Your task to perform on an android device: Go to Amazon Image 0: 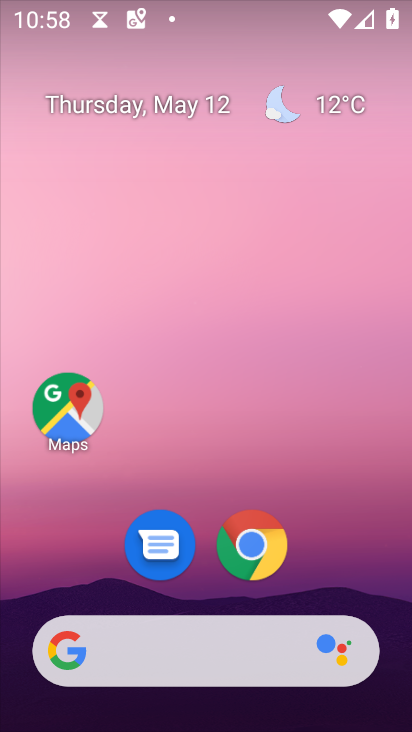
Step 0: click (248, 543)
Your task to perform on an android device: Go to Amazon Image 1: 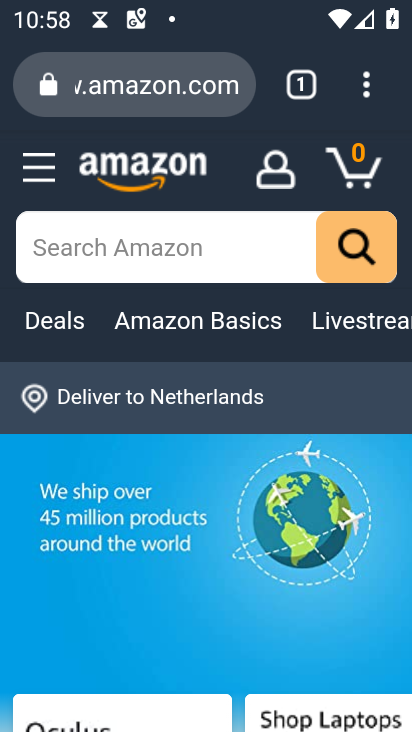
Step 1: task complete